Your task to perform on an android device: Open sound settings Image 0: 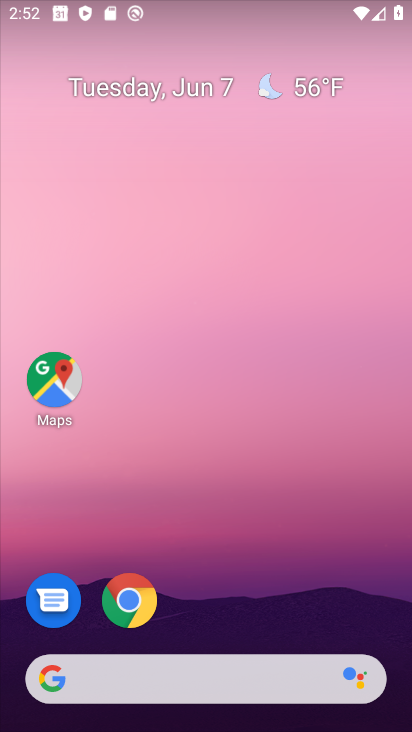
Step 0: drag from (390, 695) to (323, 99)
Your task to perform on an android device: Open sound settings Image 1: 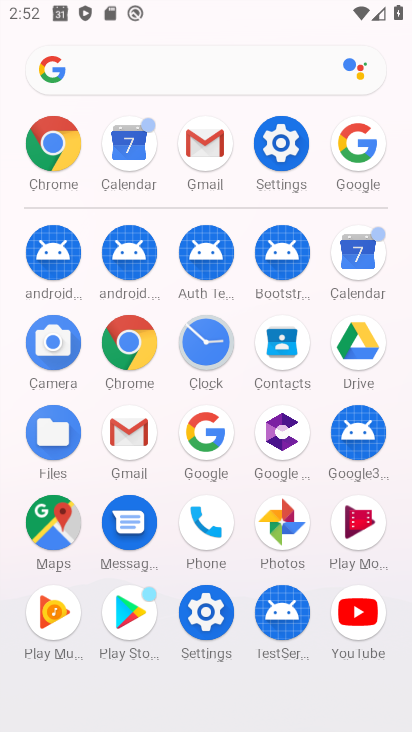
Step 1: click (205, 600)
Your task to perform on an android device: Open sound settings Image 2: 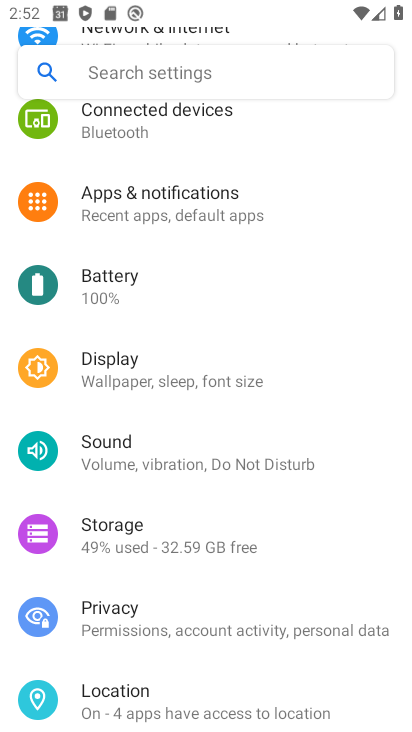
Step 2: click (117, 460)
Your task to perform on an android device: Open sound settings Image 3: 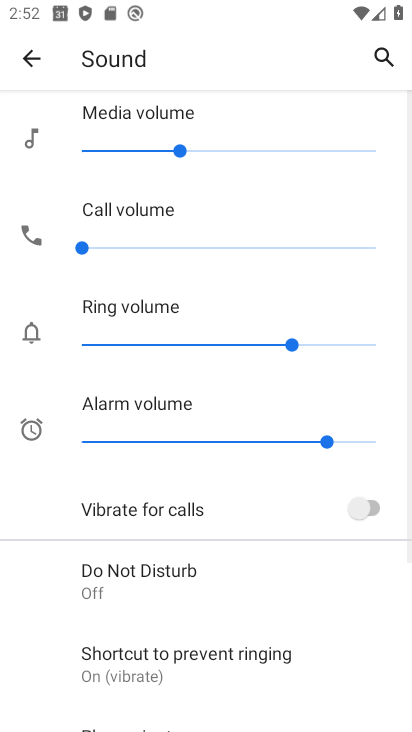
Step 3: task complete